Your task to perform on an android device: open chrome privacy settings Image 0: 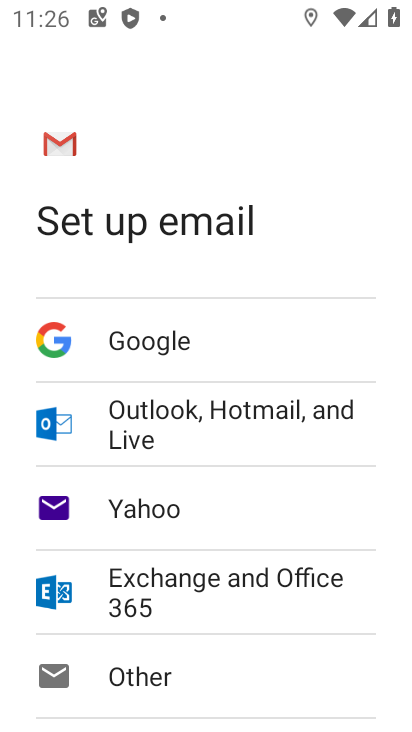
Step 0: press home button
Your task to perform on an android device: open chrome privacy settings Image 1: 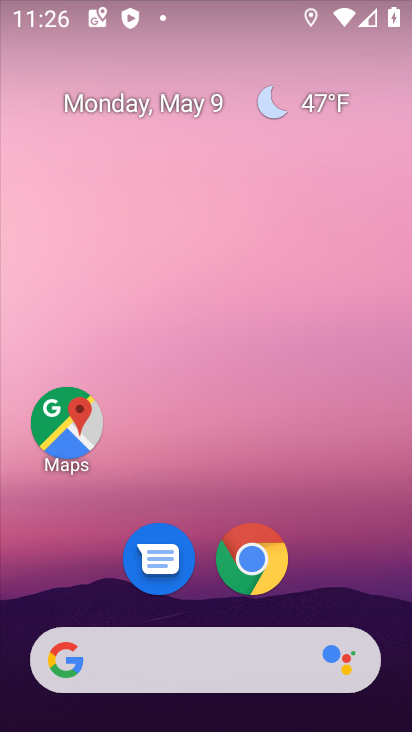
Step 1: drag from (324, 586) to (321, 344)
Your task to perform on an android device: open chrome privacy settings Image 2: 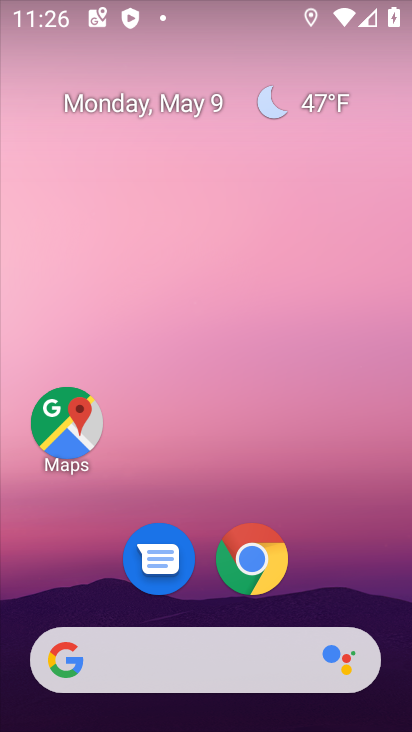
Step 2: drag from (327, 539) to (278, 10)
Your task to perform on an android device: open chrome privacy settings Image 3: 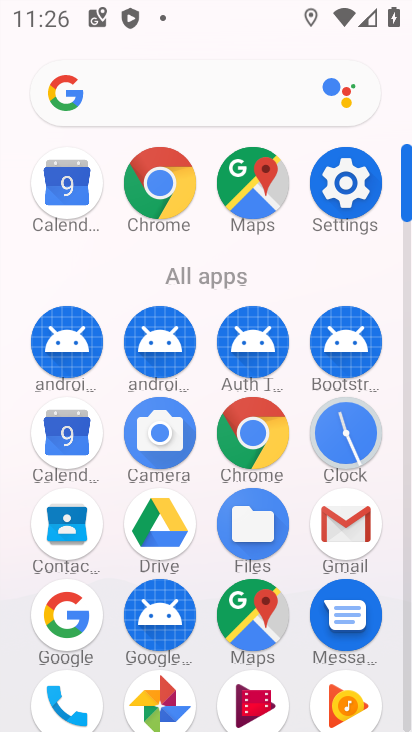
Step 3: click (255, 431)
Your task to perform on an android device: open chrome privacy settings Image 4: 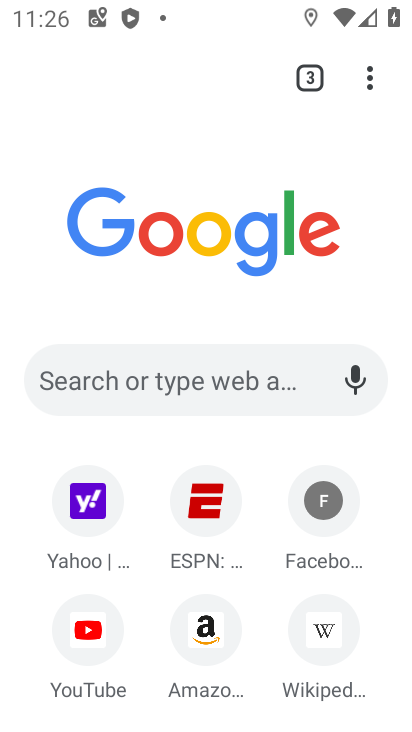
Step 4: drag from (372, 77) to (152, 617)
Your task to perform on an android device: open chrome privacy settings Image 5: 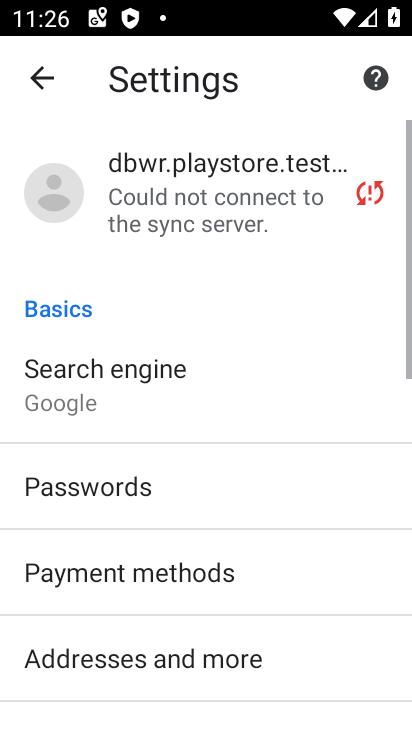
Step 5: drag from (217, 557) to (223, 111)
Your task to perform on an android device: open chrome privacy settings Image 6: 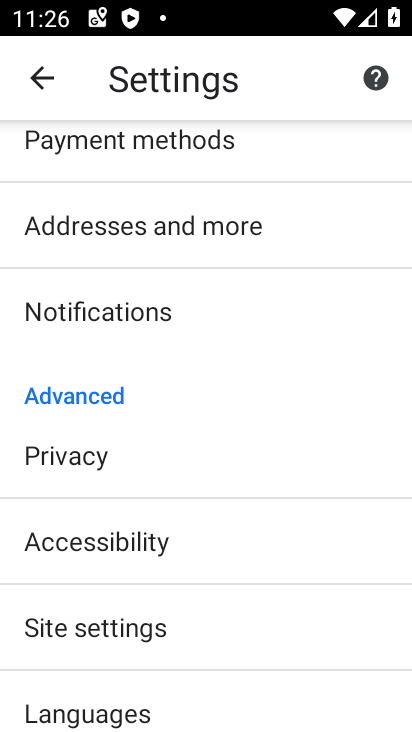
Step 6: click (197, 458)
Your task to perform on an android device: open chrome privacy settings Image 7: 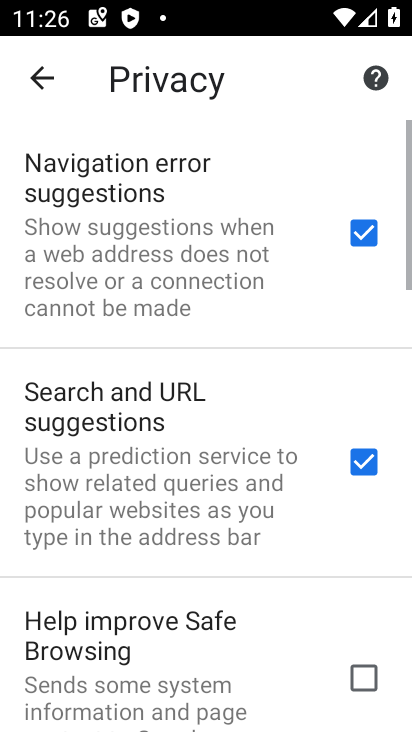
Step 7: task complete